Your task to perform on an android device: Search for Italian restaurants on Maps Image 0: 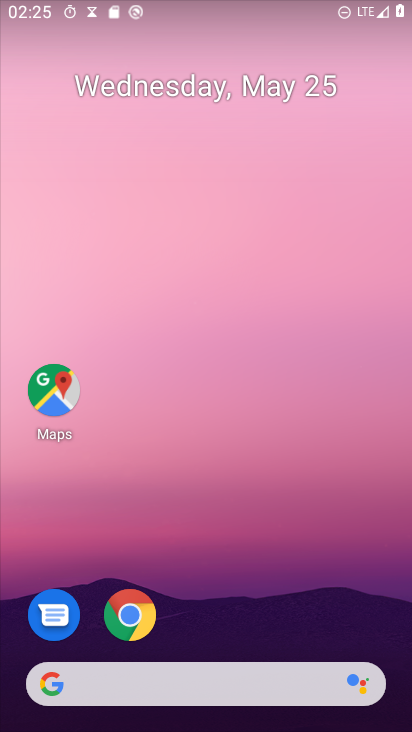
Step 0: drag from (314, 710) to (317, 169)
Your task to perform on an android device: Search for Italian restaurants on Maps Image 1: 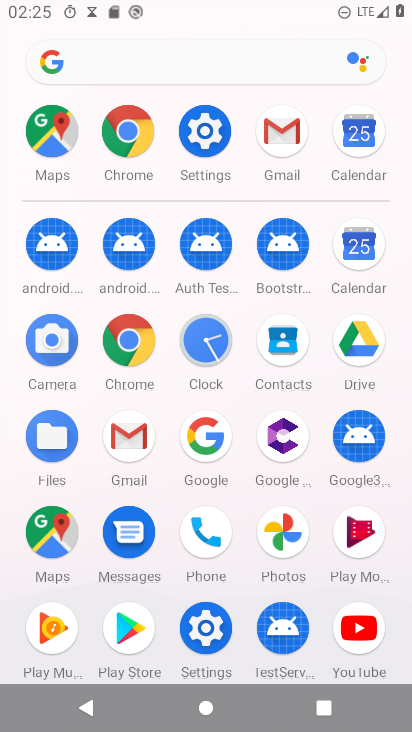
Step 1: click (63, 127)
Your task to perform on an android device: Search for Italian restaurants on Maps Image 2: 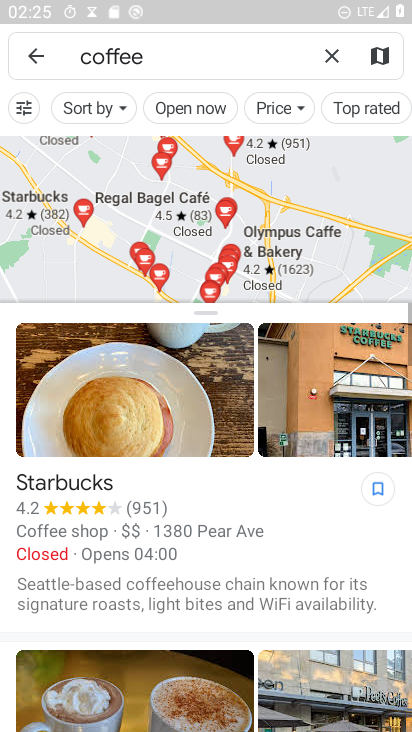
Step 2: click (329, 55)
Your task to perform on an android device: Search for Italian restaurants on Maps Image 3: 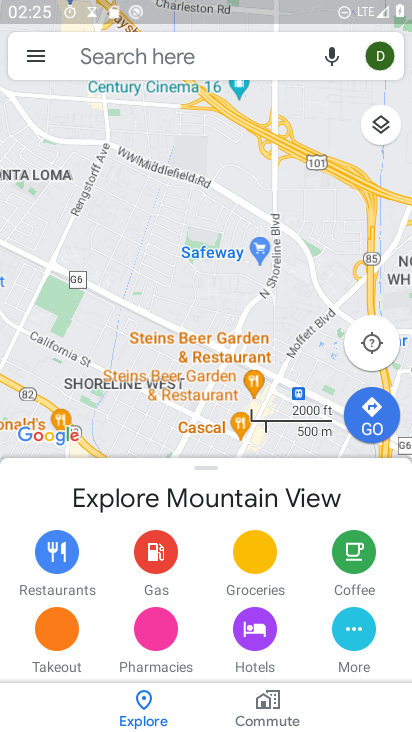
Step 3: click (161, 64)
Your task to perform on an android device: Search for Italian restaurants on Maps Image 4: 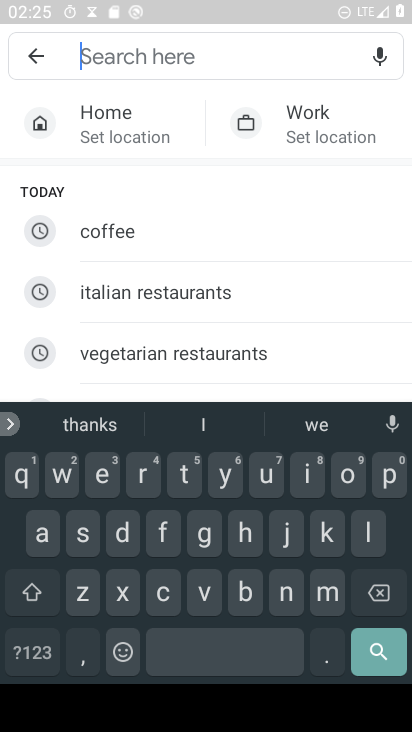
Step 4: click (137, 285)
Your task to perform on an android device: Search for Italian restaurants on Maps Image 5: 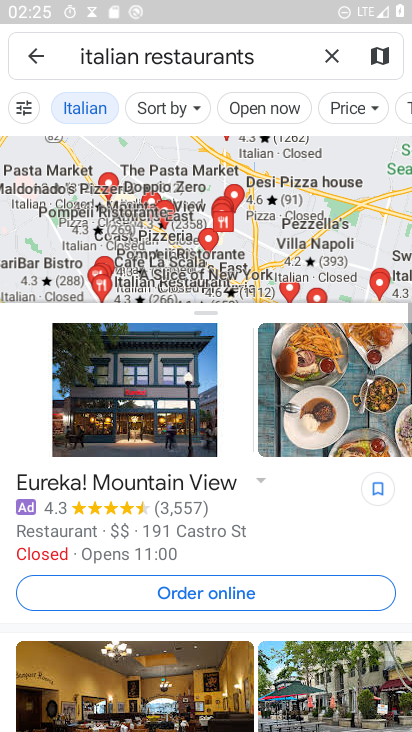
Step 5: task complete